Your task to perform on an android device: change the clock style Image 0: 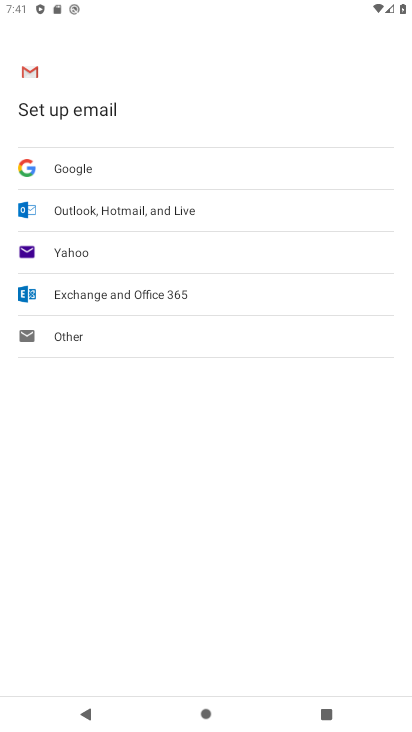
Step 0: press home button
Your task to perform on an android device: change the clock style Image 1: 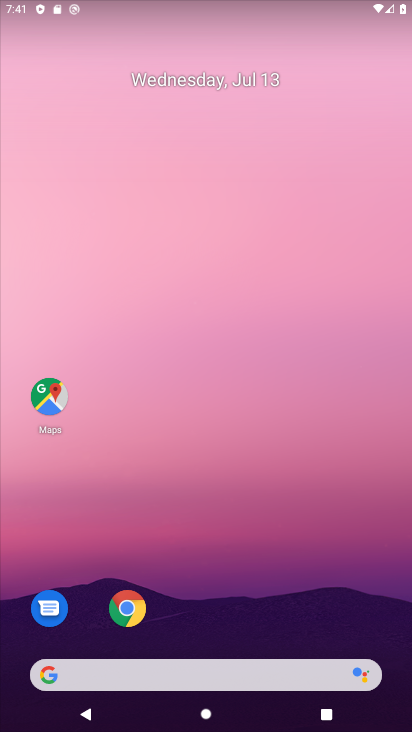
Step 1: drag from (260, 547) to (225, 201)
Your task to perform on an android device: change the clock style Image 2: 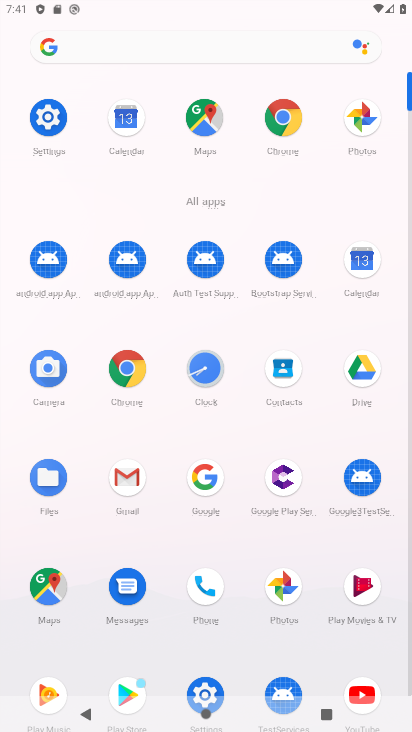
Step 2: click (208, 366)
Your task to perform on an android device: change the clock style Image 3: 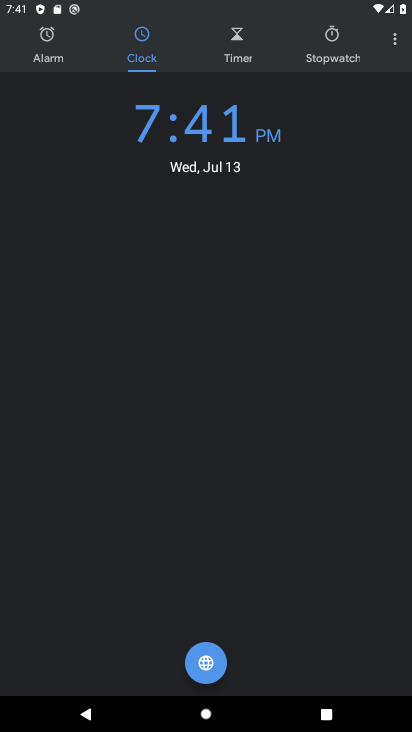
Step 3: click (395, 41)
Your task to perform on an android device: change the clock style Image 4: 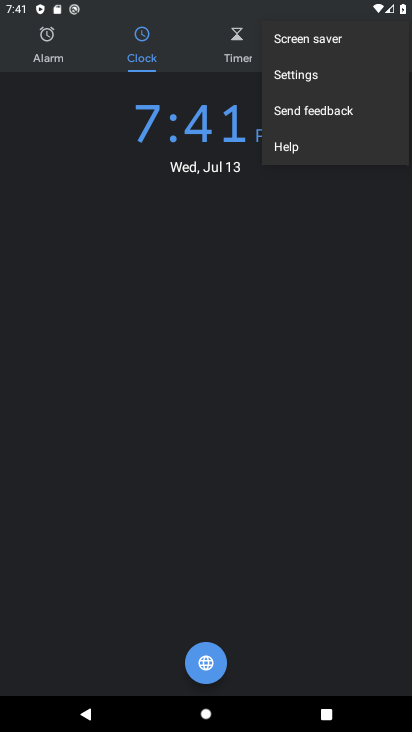
Step 4: click (300, 78)
Your task to perform on an android device: change the clock style Image 5: 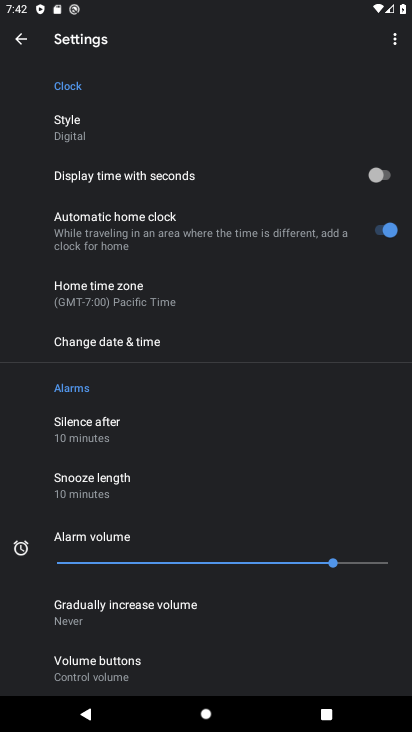
Step 5: click (67, 126)
Your task to perform on an android device: change the clock style Image 6: 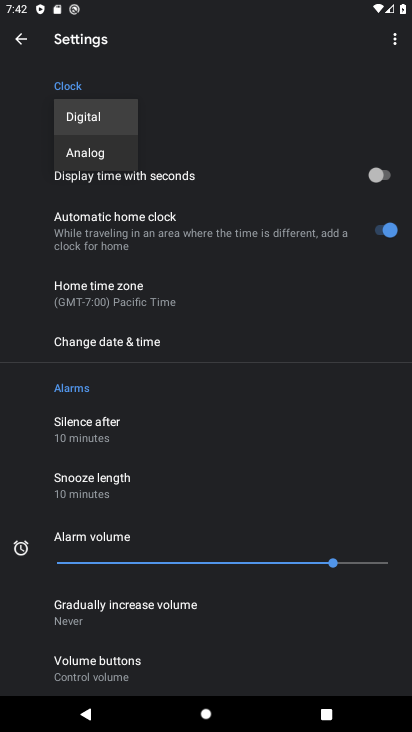
Step 6: click (94, 156)
Your task to perform on an android device: change the clock style Image 7: 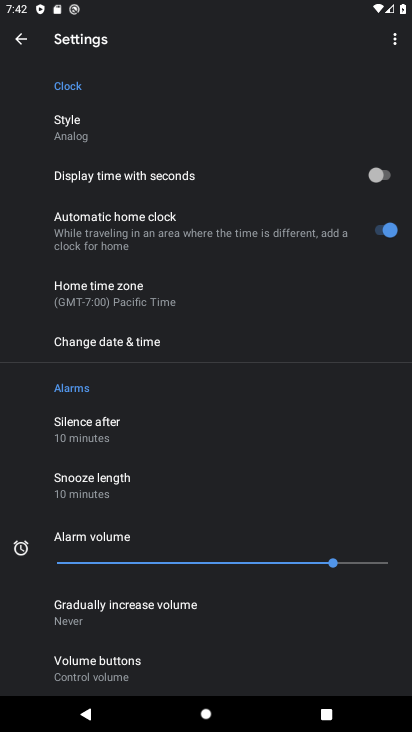
Step 7: task complete